Your task to perform on an android device: turn off improve location accuracy Image 0: 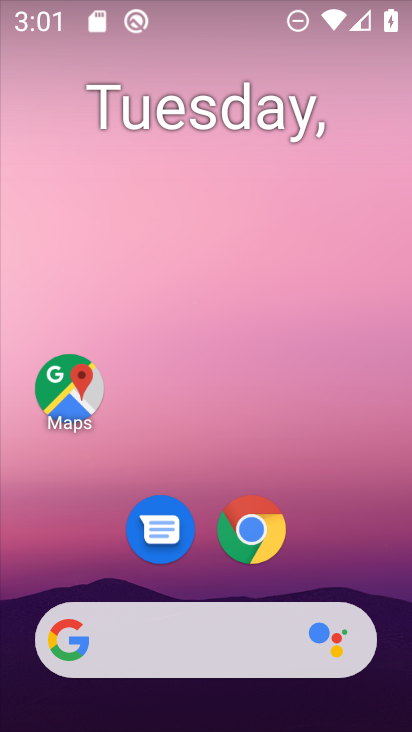
Step 0: drag from (238, 440) to (410, 300)
Your task to perform on an android device: turn off improve location accuracy Image 1: 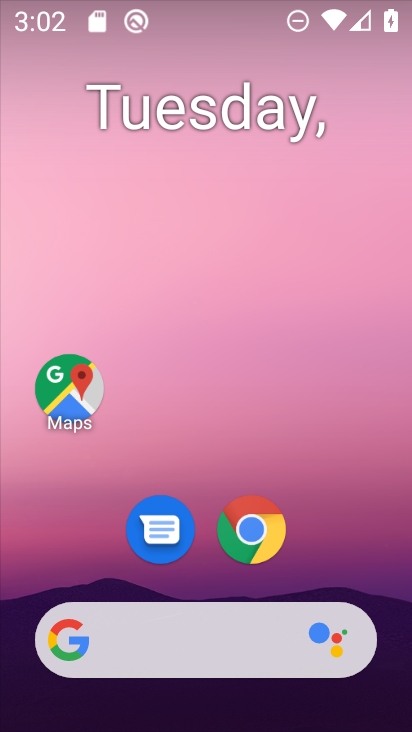
Step 1: click (350, 315)
Your task to perform on an android device: turn off improve location accuracy Image 2: 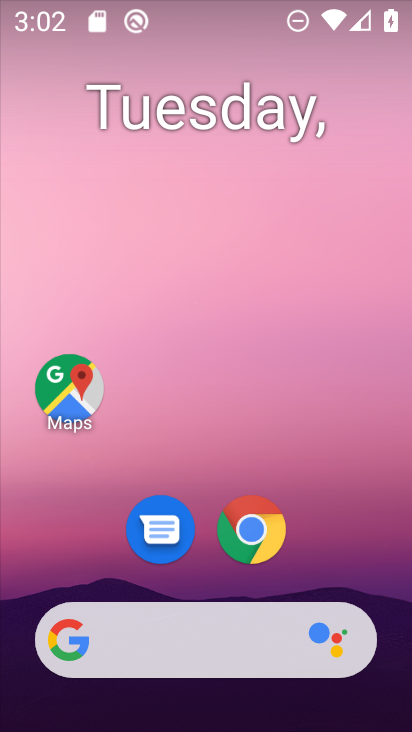
Step 2: drag from (259, 519) to (273, 59)
Your task to perform on an android device: turn off improve location accuracy Image 3: 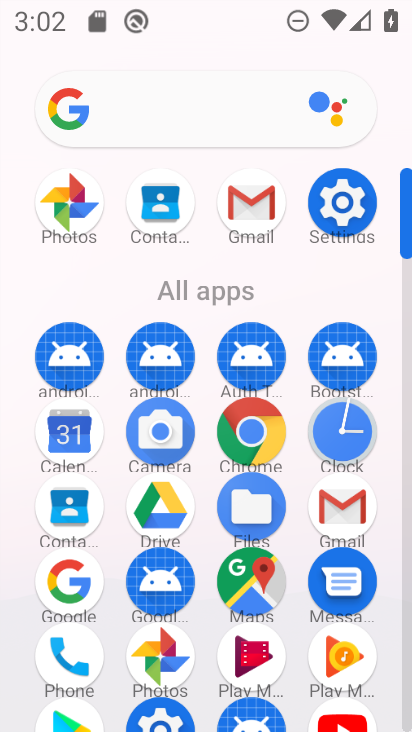
Step 3: click (330, 193)
Your task to perform on an android device: turn off improve location accuracy Image 4: 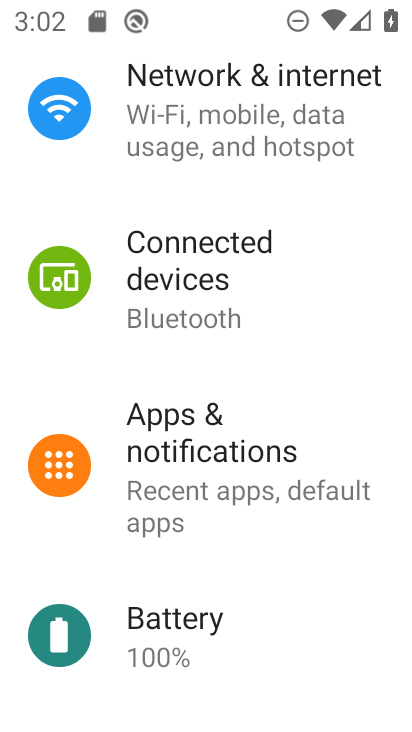
Step 4: drag from (175, 650) to (223, 147)
Your task to perform on an android device: turn off improve location accuracy Image 5: 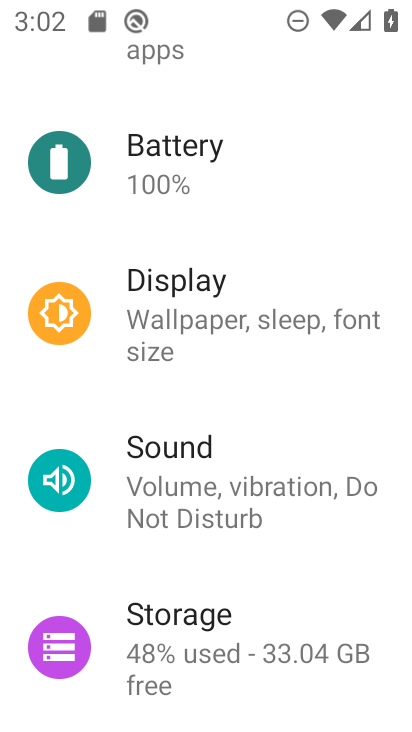
Step 5: drag from (148, 618) to (263, 98)
Your task to perform on an android device: turn off improve location accuracy Image 6: 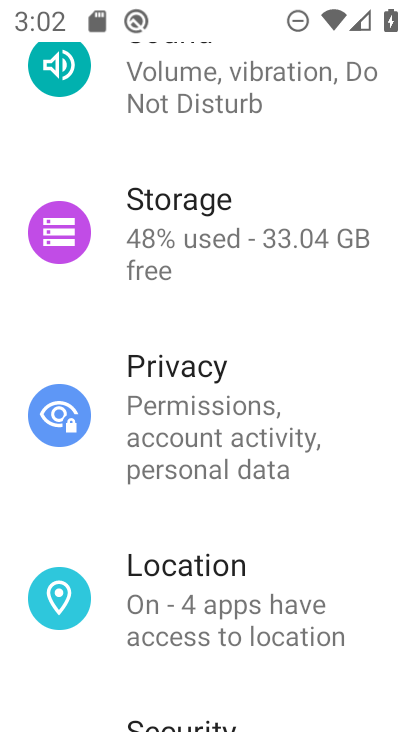
Step 6: click (198, 588)
Your task to perform on an android device: turn off improve location accuracy Image 7: 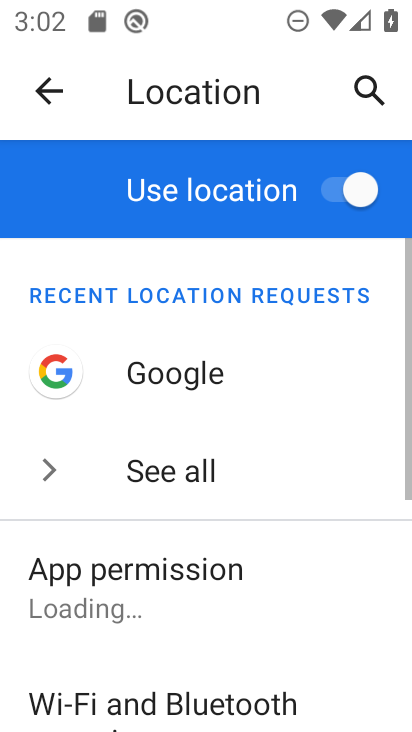
Step 7: drag from (173, 634) to (248, 96)
Your task to perform on an android device: turn off improve location accuracy Image 8: 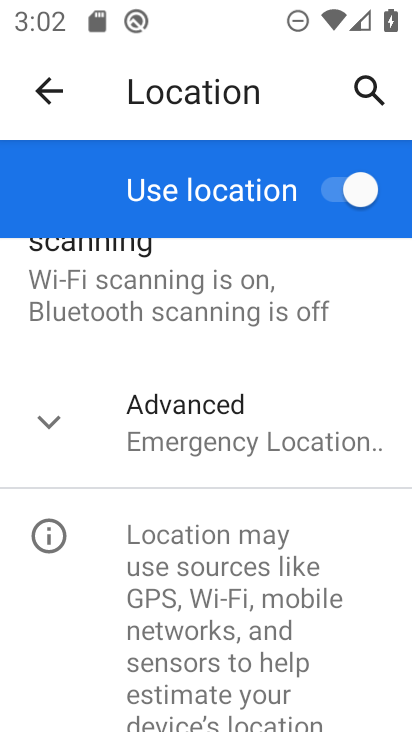
Step 8: click (161, 428)
Your task to perform on an android device: turn off improve location accuracy Image 9: 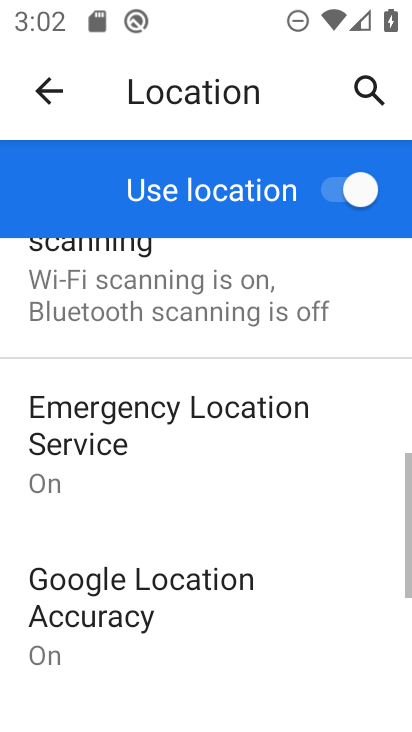
Step 9: click (125, 616)
Your task to perform on an android device: turn off improve location accuracy Image 10: 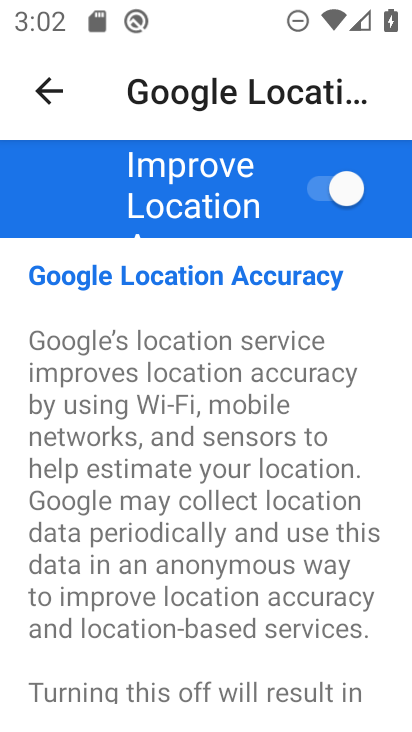
Step 10: click (338, 195)
Your task to perform on an android device: turn off improve location accuracy Image 11: 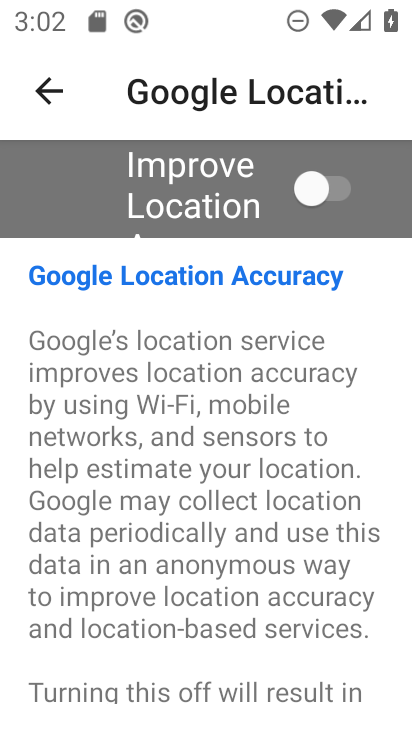
Step 11: task complete